Your task to perform on an android device: Do I have any events tomorrow? Image 0: 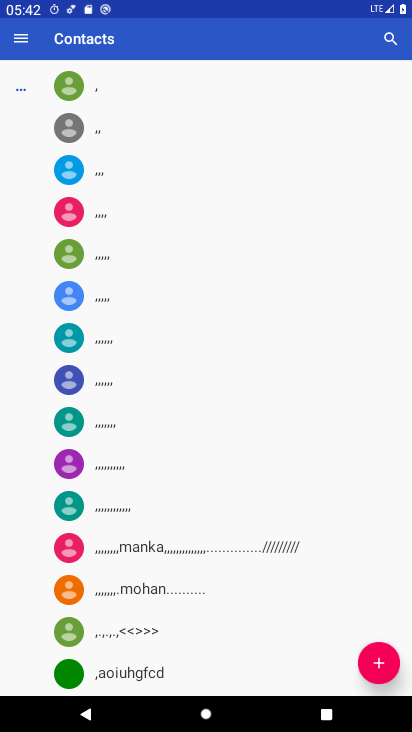
Step 0: drag from (264, 505) to (207, 125)
Your task to perform on an android device: Do I have any events tomorrow? Image 1: 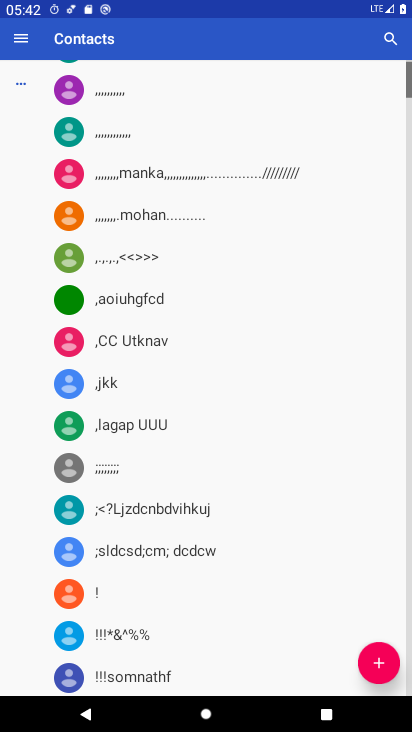
Step 1: press home button
Your task to perform on an android device: Do I have any events tomorrow? Image 2: 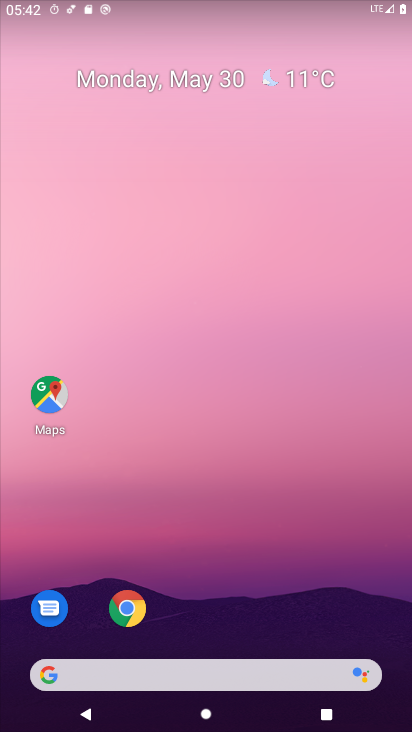
Step 2: click (179, 84)
Your task to perform on an android device: Do I have any events tomorrow? Image 3: 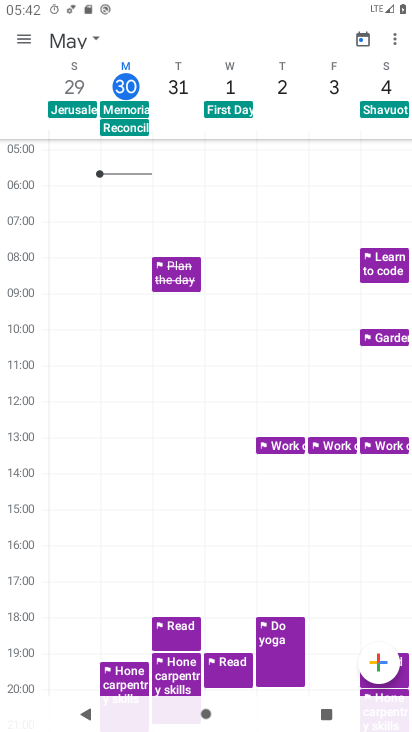
Step 3: task complete